Your task to perform on an android device: Go to sound settings Image 0: 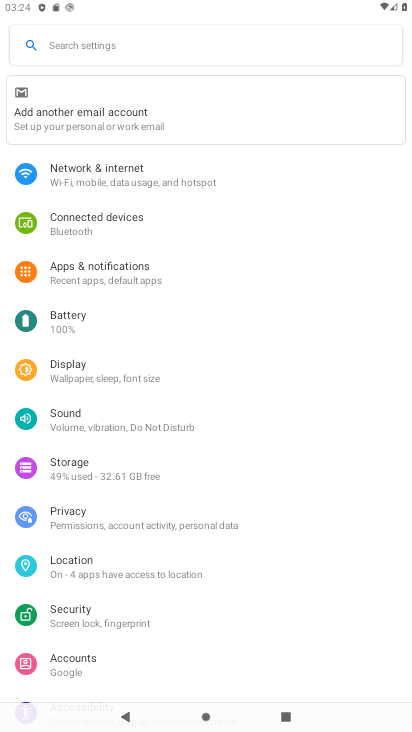
Step 0: click (72, 415)
Your task to perform on an android device: Go to sound settings Image 1: 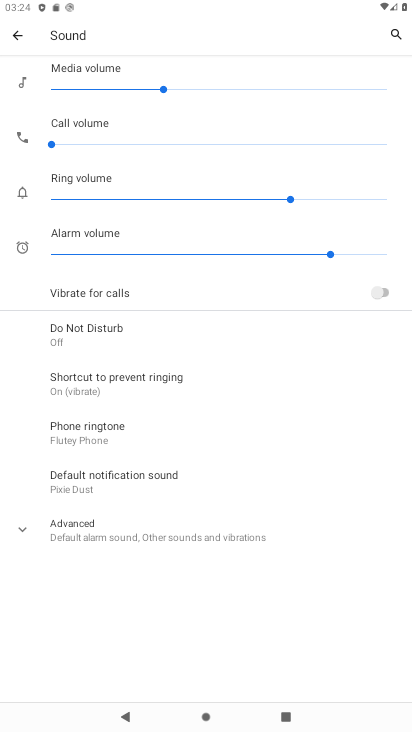
Step 1: task complete